Your task to perform on an android device: open a new tab in the chrome app Image 0: 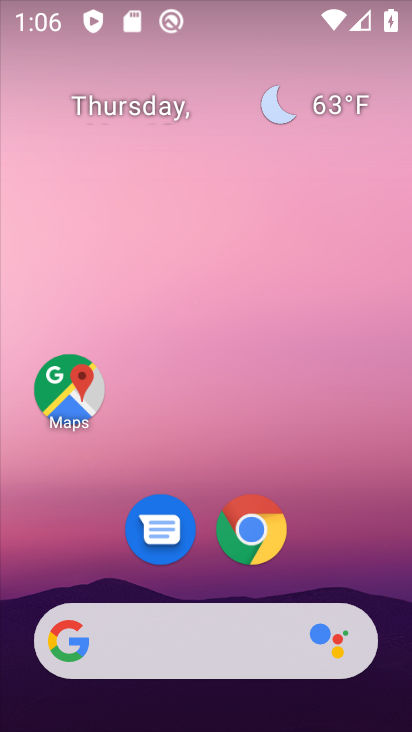
Step 0: click (255, 525)
Your task to perform on an android device: open a new tab in the chrome app Image 1: 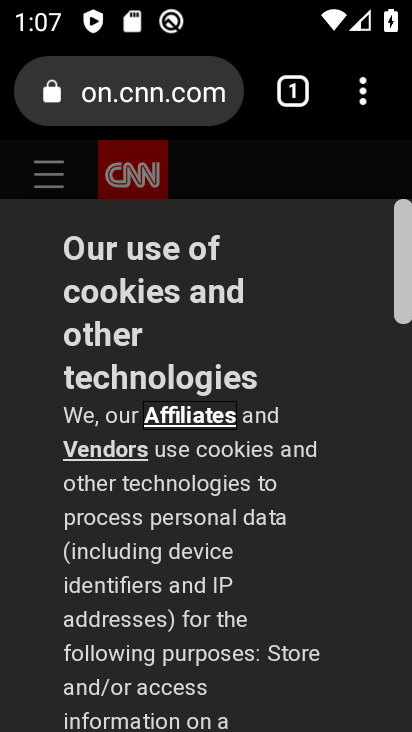
Step 1: click (364, 91)
Your task to perform on an android device: open a new tab in the chrome app Image 2: 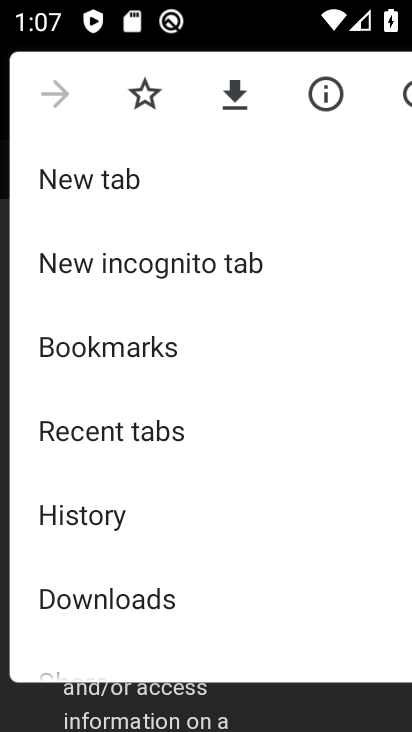
Step 2: click (137, 184)
Your task to perform on an android device: open a new tab in the chrome app Image 3: 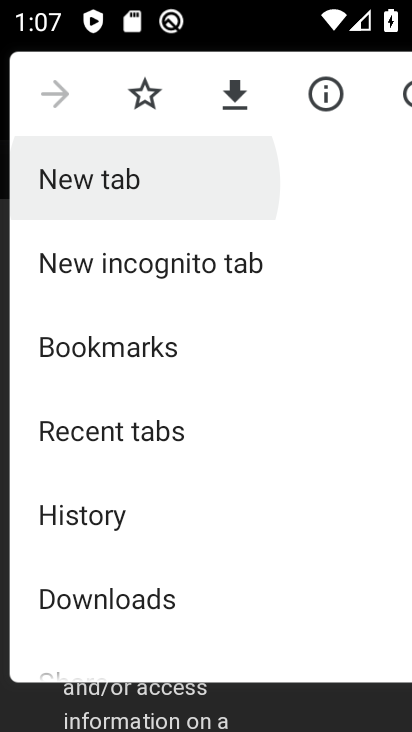
Step 3: click (137, 184)
Your task to perform on an android device: open a new tab in the chrome app Image 4: 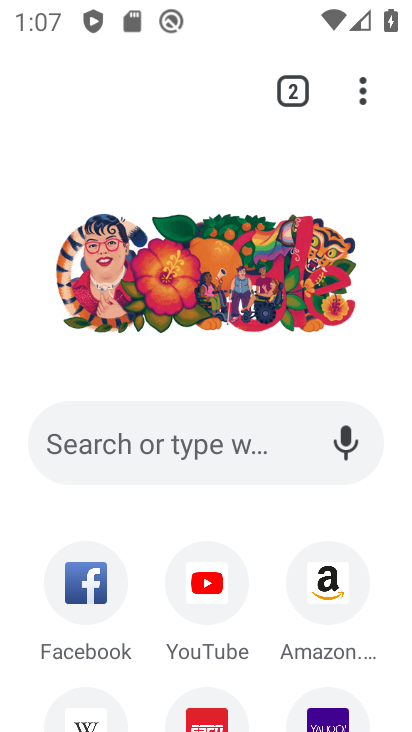
Step 4: task complete